Your task to perform on an android device: turn off smart reply in the gmail app Image 0: 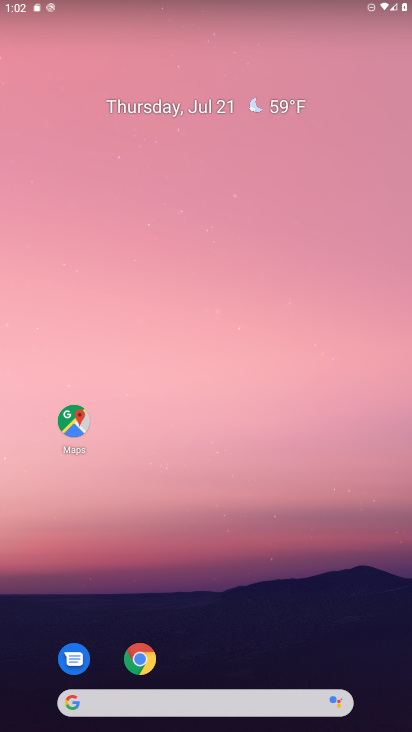
Step 0: press home button
Your task to perform on an android device: turn off smart reply in the gmail app Image 1: 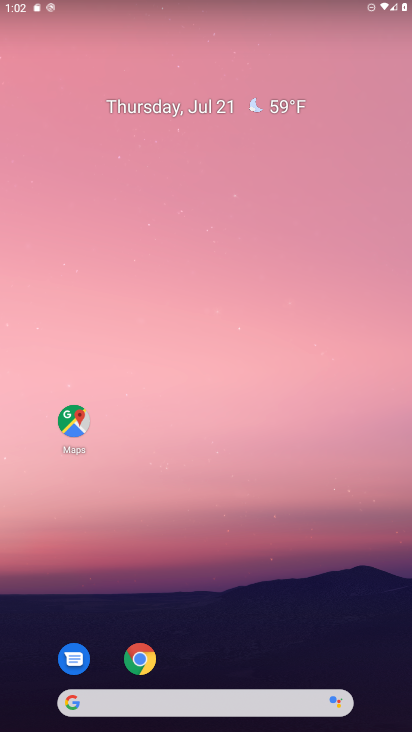
Step 1: drag from (15, 592) to (305, 28)
Your task to perform on an android device: turn off smart reply in the gmail app Image 2: 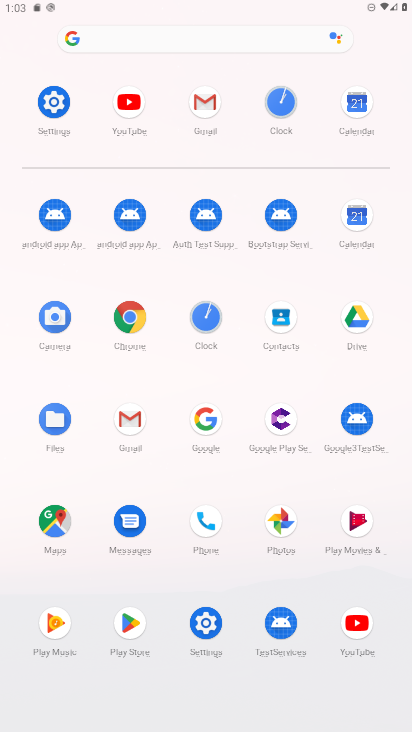
Step 2: click (203, 97)
Your task to perform on an android device: turn off smart reply in the gmail app Image 3: 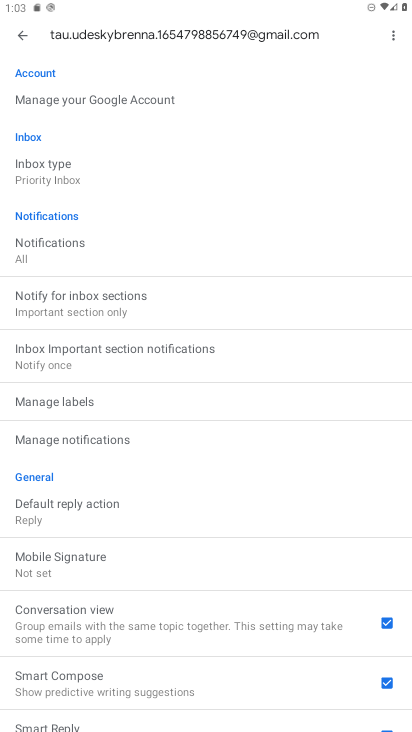
Step 3: drag from (3, 593) to (221, 66)
Your task to perform on an android device: turn off smart reply in the gmail app Image 4: 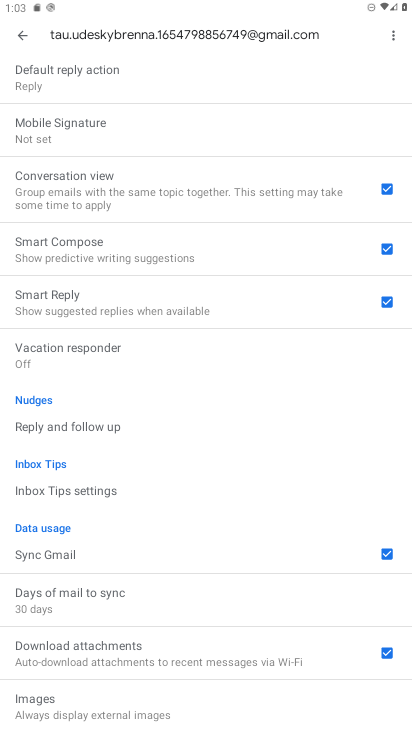
Step 4: click (381, 301)
Your task to perform on an android device: turn off smart reply in the gmail app Image 5: 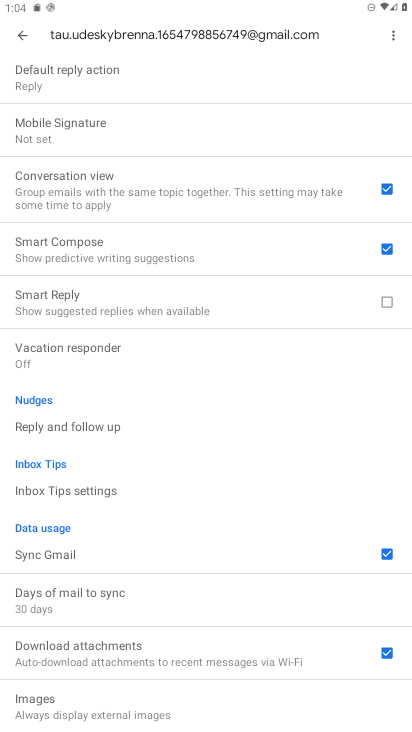
Step 5: task complete